Your task to perform on an android device: Go to Wikipedia Image 0: 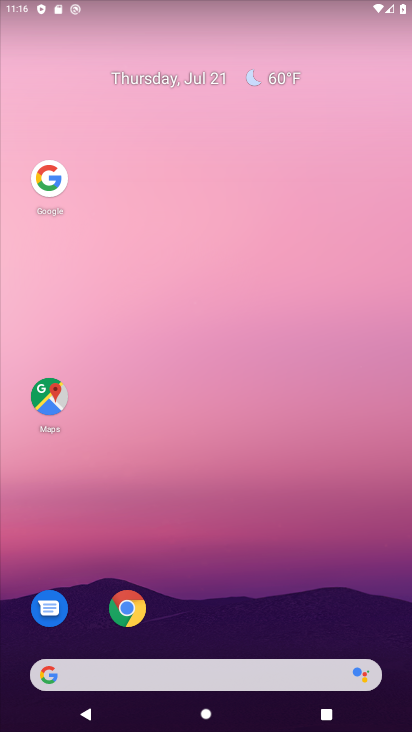
Step 0: click (129, 604)
Your task to perform on an android device: Go to Wikipedia Image 1: 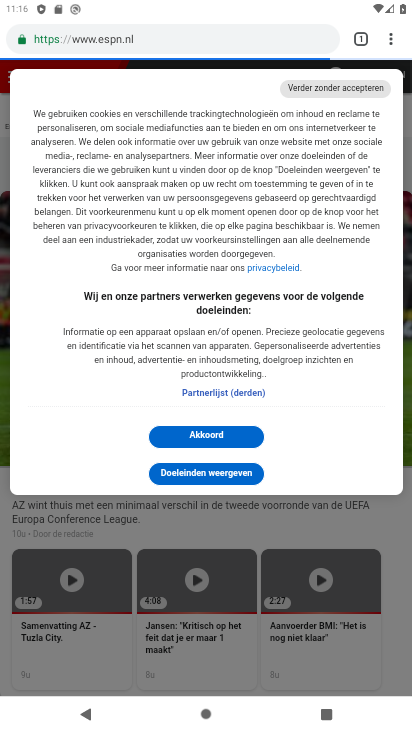
Step 1: click (360, 35)
Your task to perform on an android device: Go to Wikipedia Image 2: 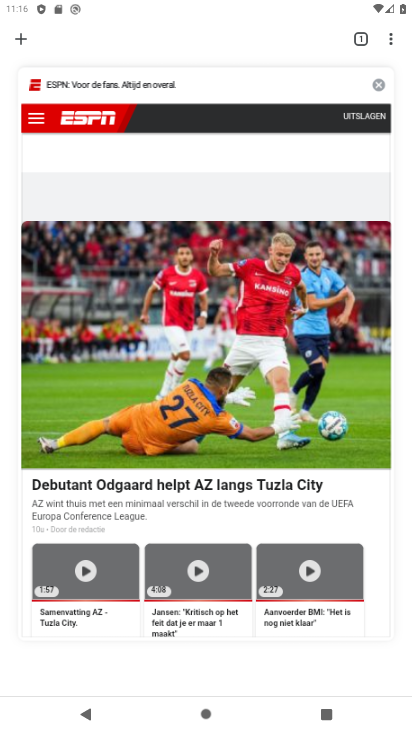
Step 2: click (16, 43)
Your task to perform on an android device: Go to Wikipedia Image 3: 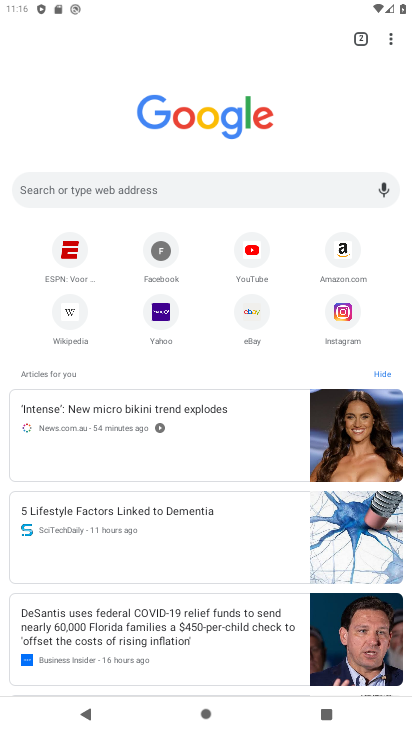
Step 3: click (58, 303)
Your task to perform on an android device: Go to Wikipedia Image 4: 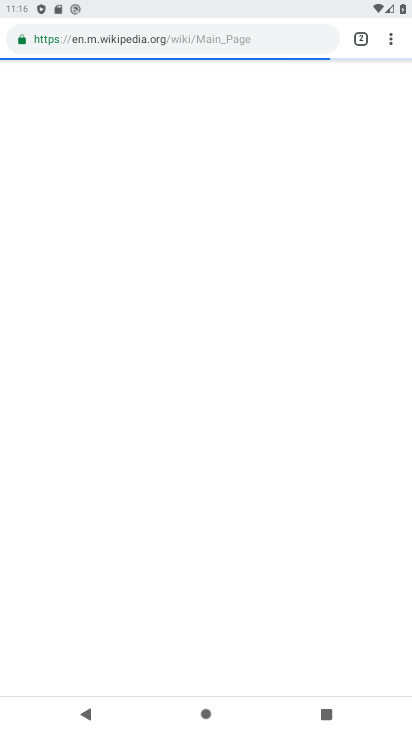
Step 4: task complete